Your task to perform on an android device: toggle show notifications on the lock screen Image 0: 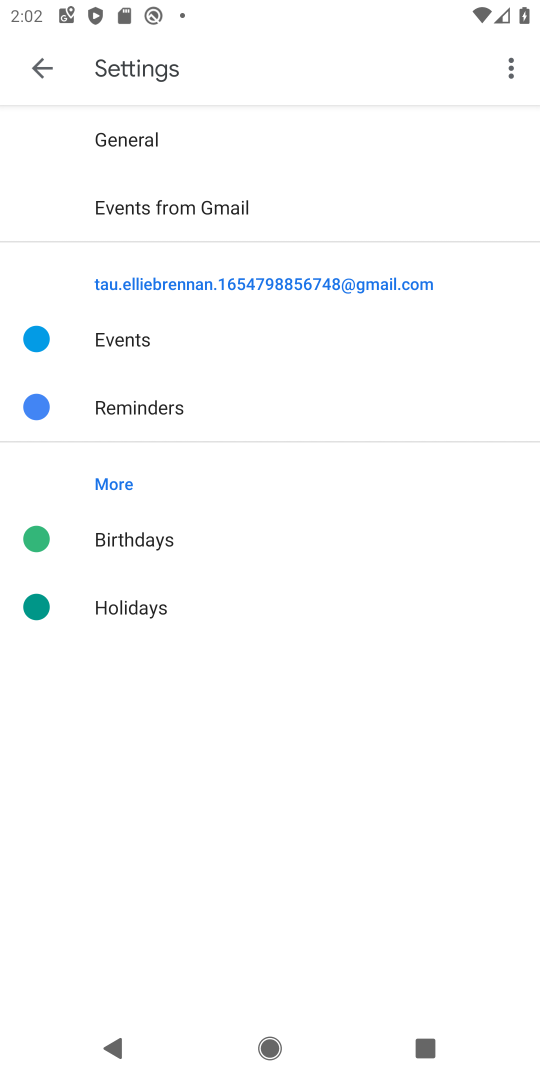
Step 0: press home button
Your task to perform on an android device: toggle show notifications on the lock screen Image 1: 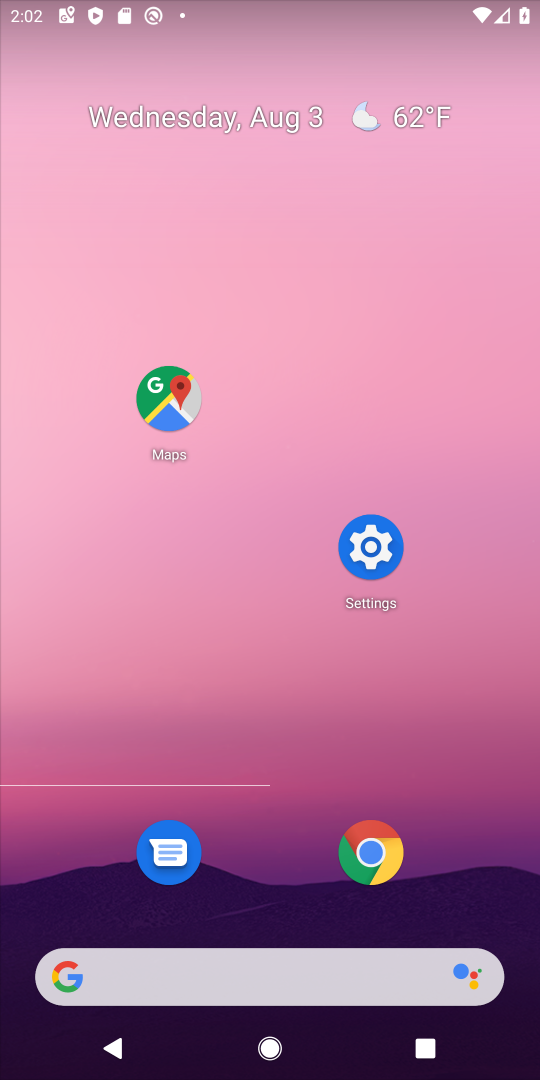
Step 1: click (371, 547)
Your task to perform on an android device: toggle show notifications on the lock screen Image 2: 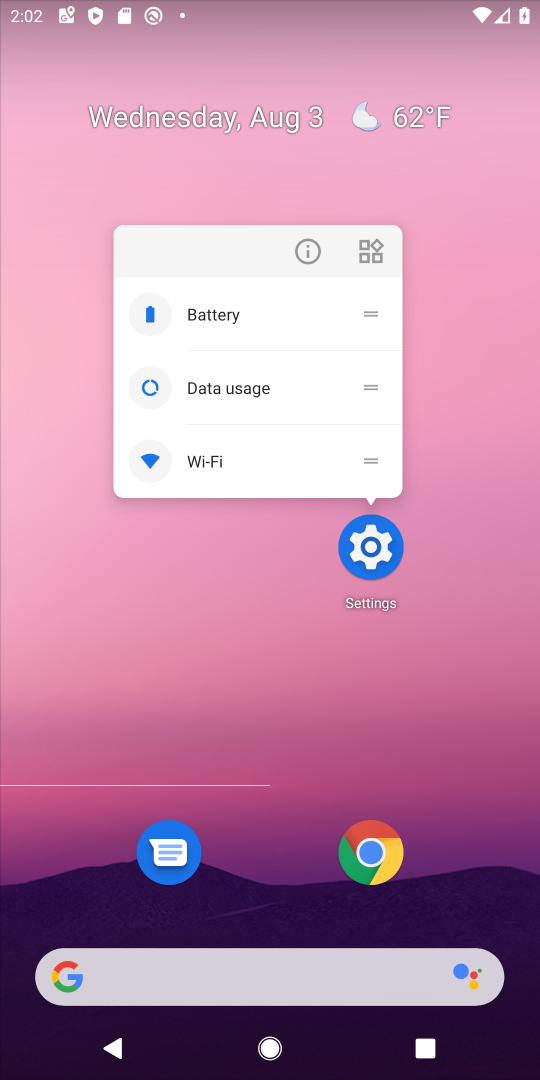
Step 2: click (371, 548)
Your task to perform on an android device: toggle show notifications on the lock screen Image 3: 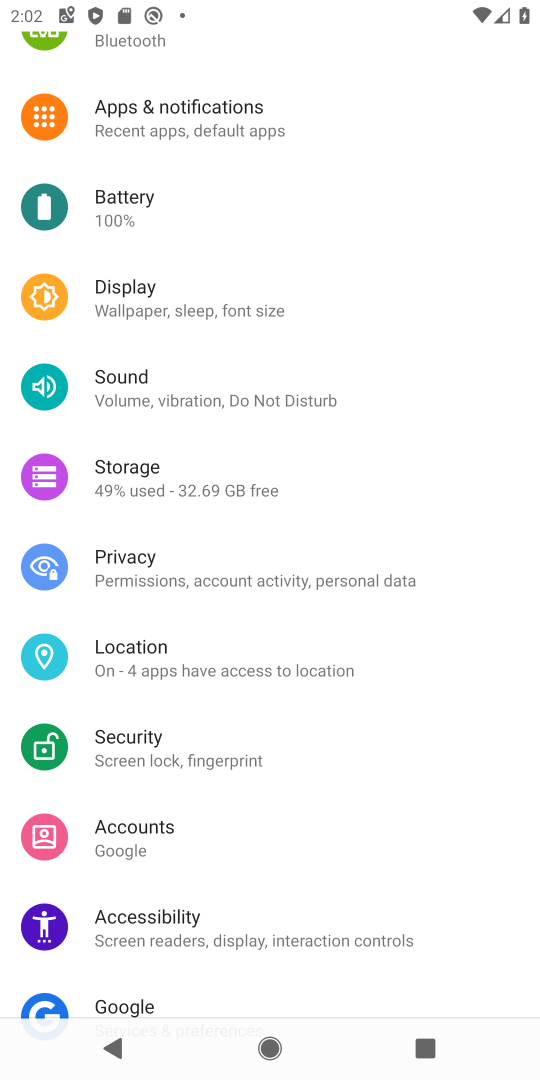
Step 3: drag from (423, 206) to (427, 825)
Your task to perform on an android device: toggle show notifications on the lock screen Image 4: 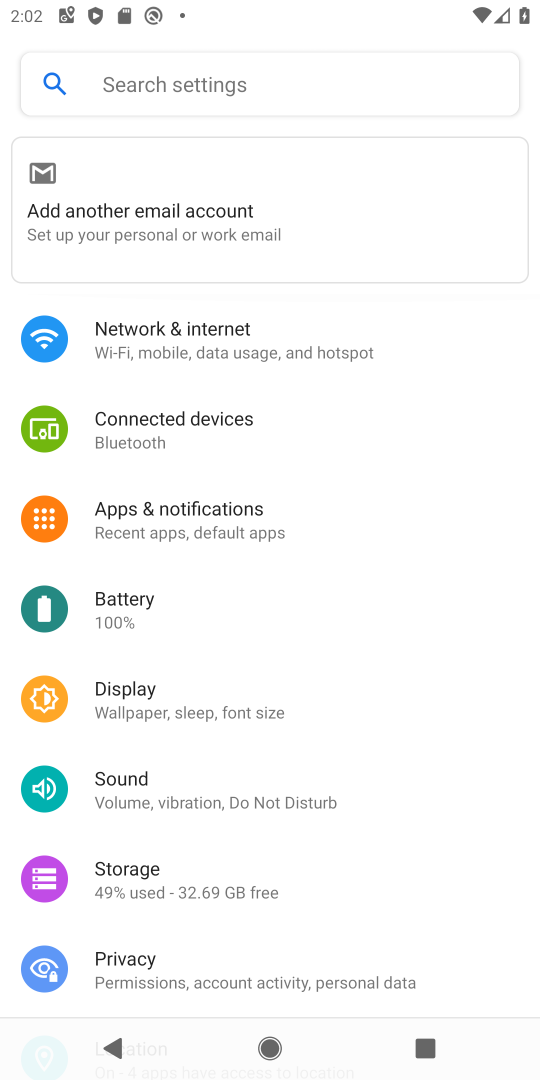
Step 4: click (183, 505)
Your task to perform on an android device: toggle show notifications on the lock screen Image 5: 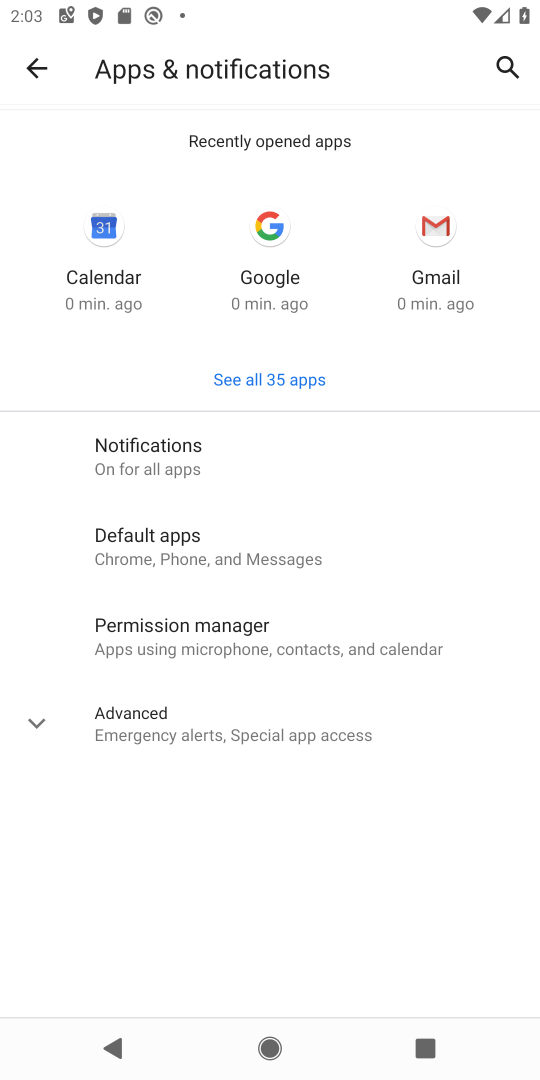
Step 5: click (155, 447)
Your task to perform on an android device: toggle show notifications on the lock screen Image 6: 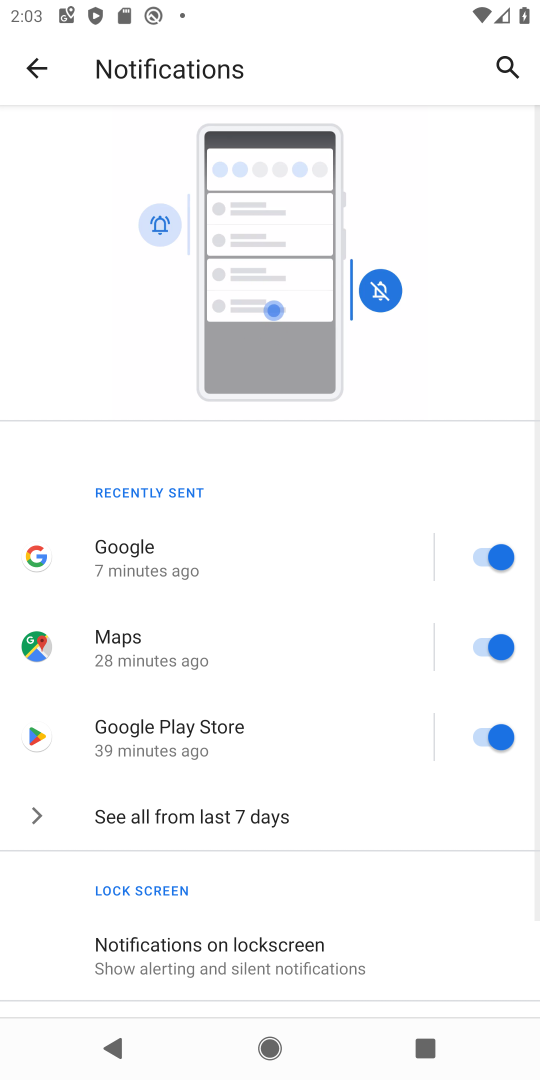
Step 6: drag from (274, 893) to (429, 462)
Your task to perform on an android device: toggle show notifications on the lock screen Image 7: 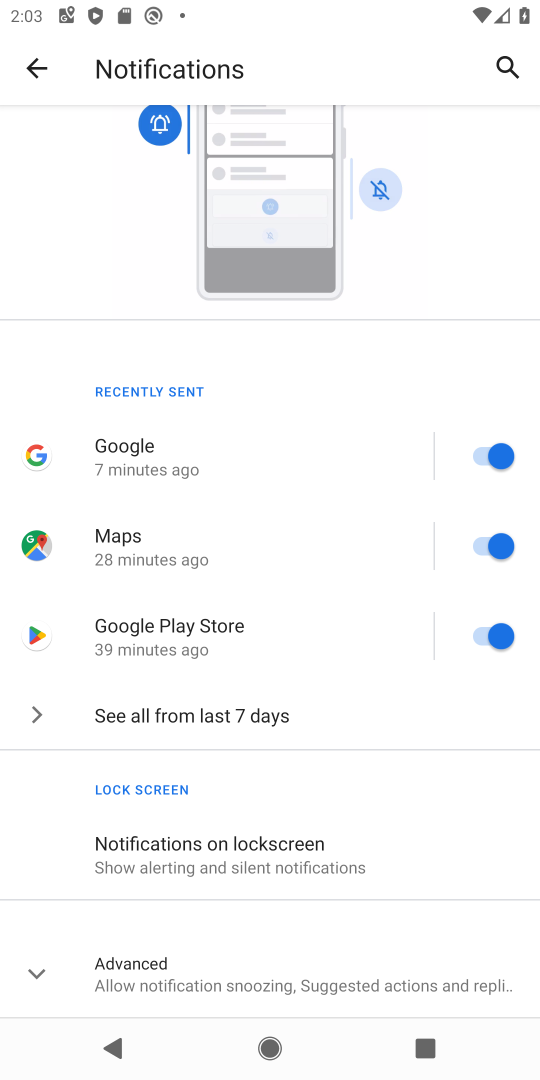
Step 7: click (239, 846)
Your task to perform on an android device: toggle show notifications on the lock screen Image 8: 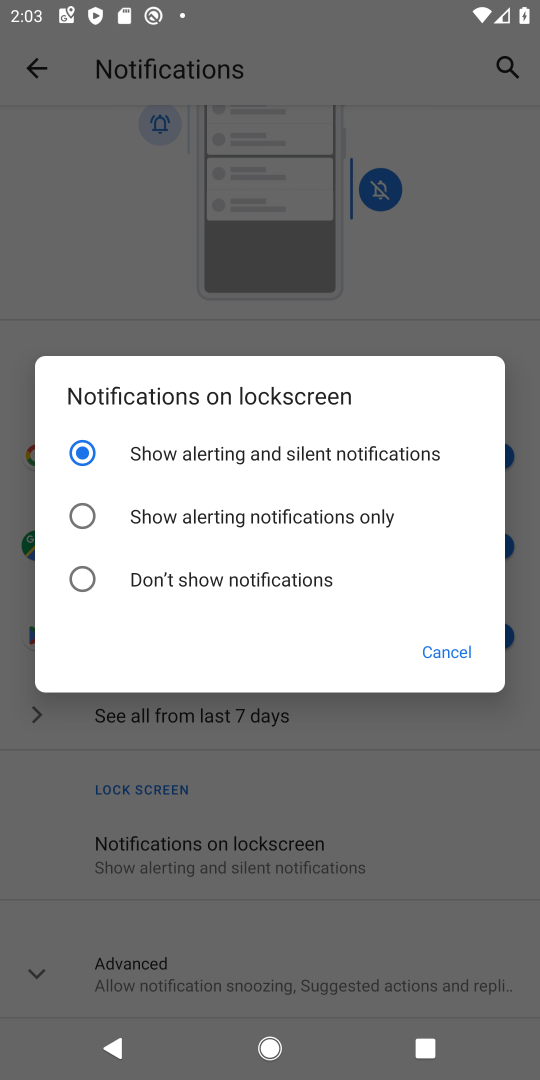
Step 8: click (79, 578)
Your task to perform on an android device: toggle show notifications on the lock screen Image 9: 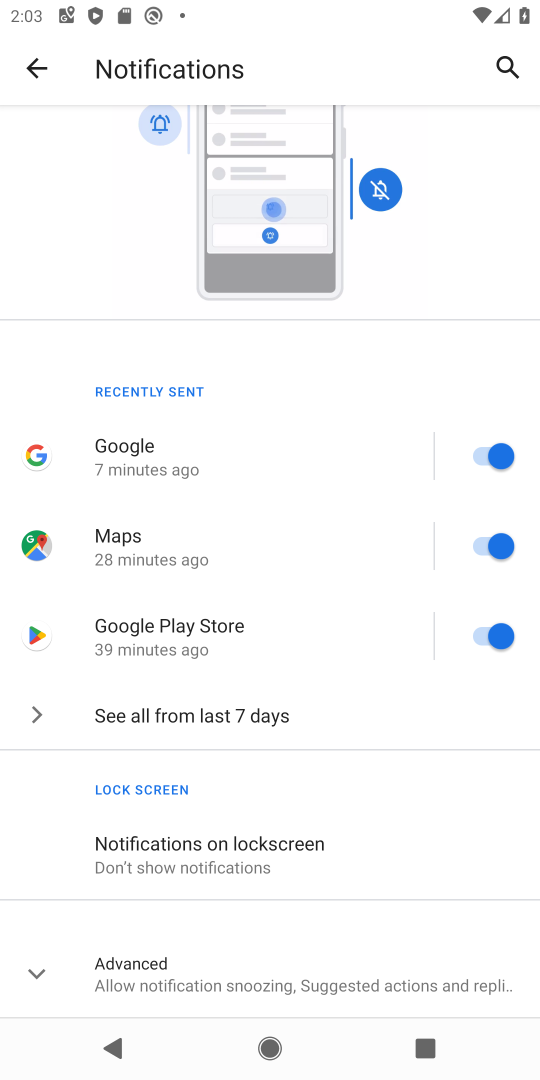
Step 9: task complete